Your task to perform on an android device: turn off priority inbox in the gmail app Image 0: 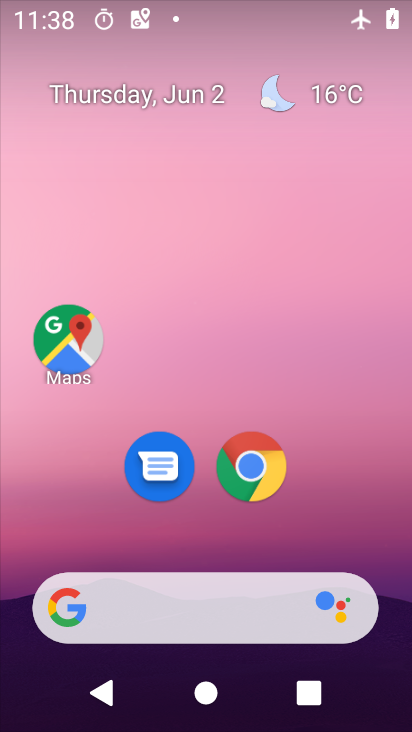
Step 0: drag from (223, 556) to (234, 183)
Your task to perform on an android device: turn off priority inbox in the gmail app Image 1: 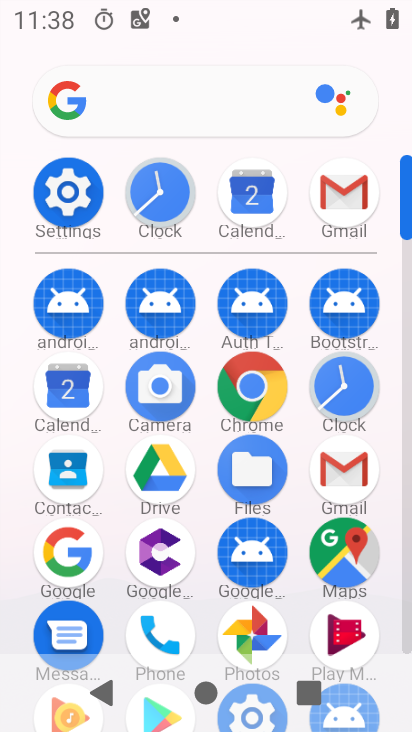
Step 1: click (343, 195)
Your task to perform on an android device: turn off priority inbox in the gmail app Image 2: 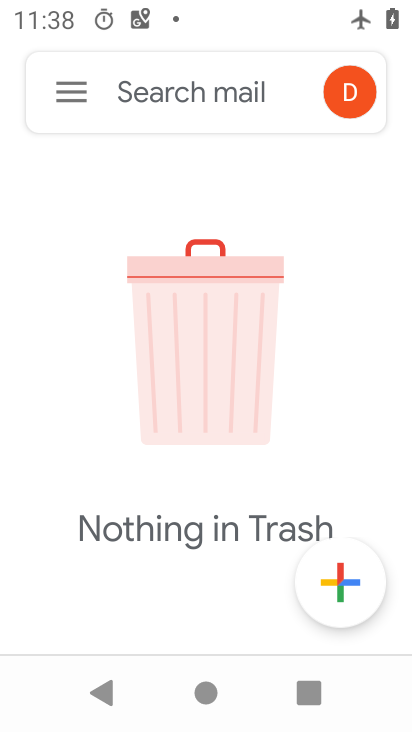
Step 2: click (69, 83)
Your task to perform on an android device: turn off priority inbox in the gmail app Image 3: 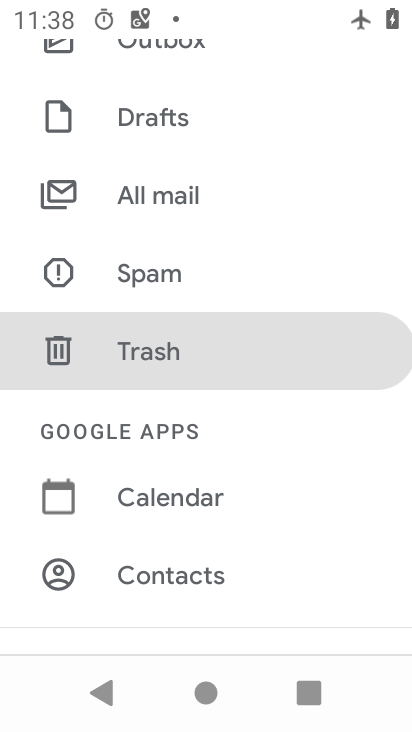
Step 3: drag from (193, 476) to (221, 212)
Your task to perform on an android device: turn off priority inbox in the gmail app Image 4: 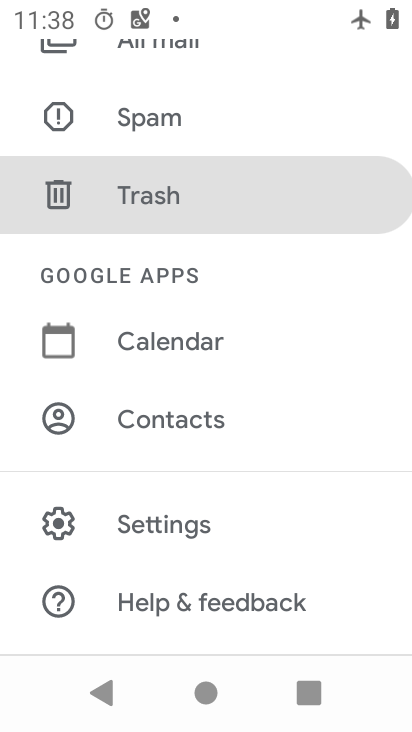
Step 4: click (173, 534)
Your task to perform on an android device: turn off priority inbox in the gmail app Image 5: 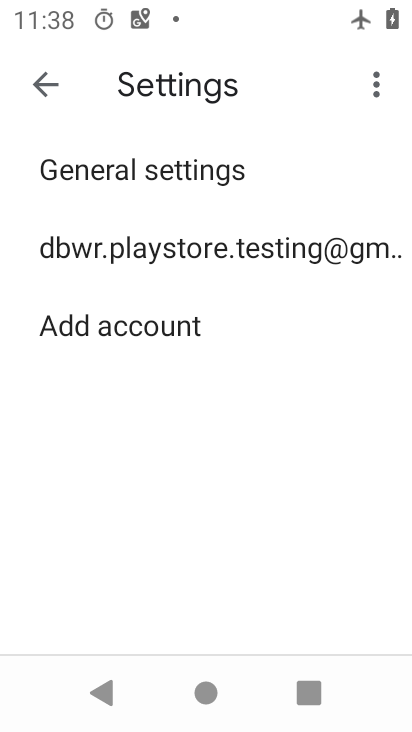
Step 5: click (129, 254)
Your task to perform on an android device: turn off priority inbox in the gmail app Image 6: 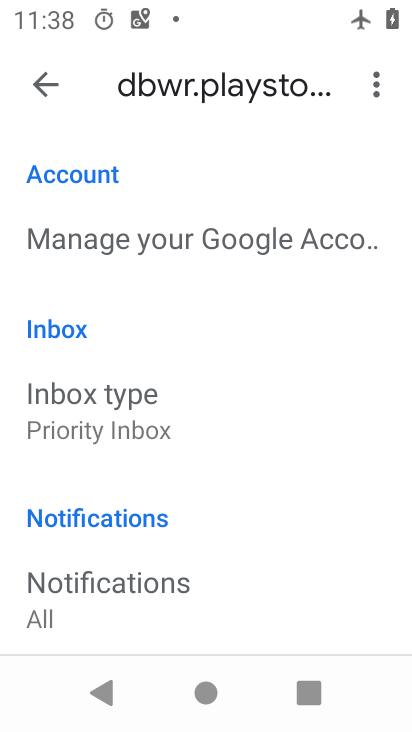
Step 6: click (128, 399)
Your task to perform on an android device: turn off priority inbox in the gmail app Image 7: 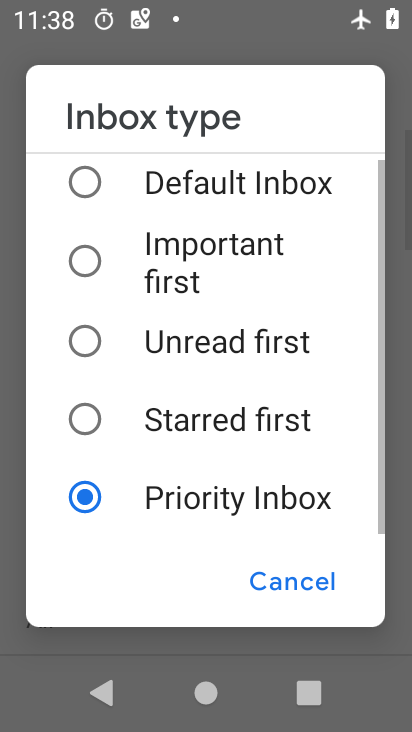
Step 7: click (133, 187)
Your task to perform on an android device: turn off priority inbox in the gmail app Image 8: 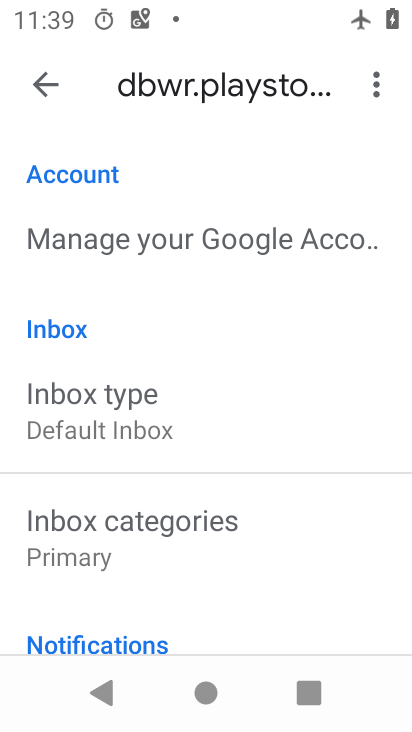
Step 8: task complete